Your task to perform on an android device: What's the weather going to be this weekend? Image 0: 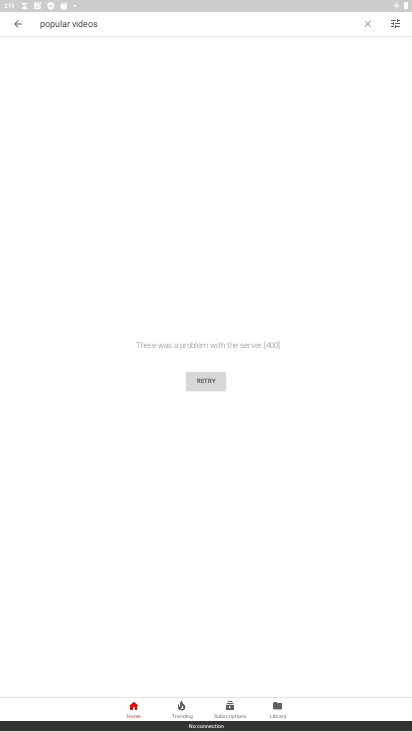
Step 0: press home button
Your task to perform on an android device: What's the weather going to be this weekend? Image 1: 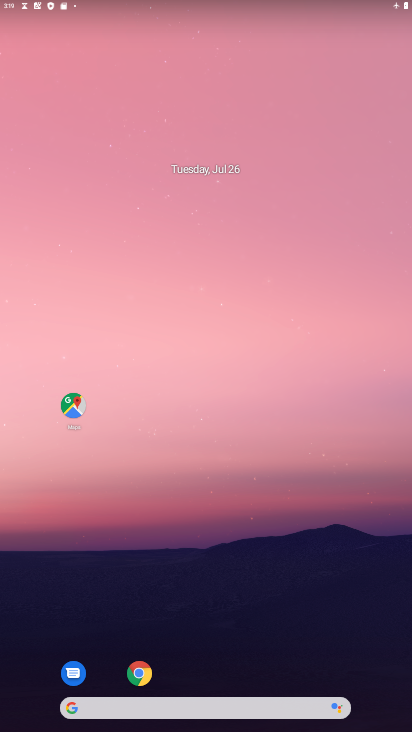
Step 1: drag from (196, 704) to (154, 12)
Your task to perform on an android device: What's the weather going to be this weekend? Image 2: 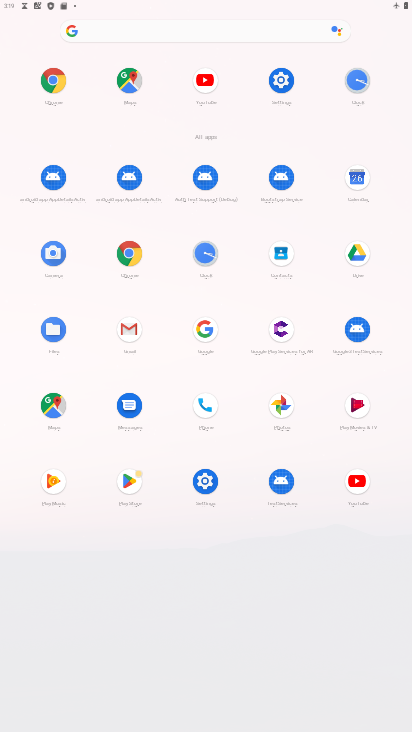
Step 2: click (203, 328)
Your task to perform on an android device: What's the weather going to be this weekend? Image 3: 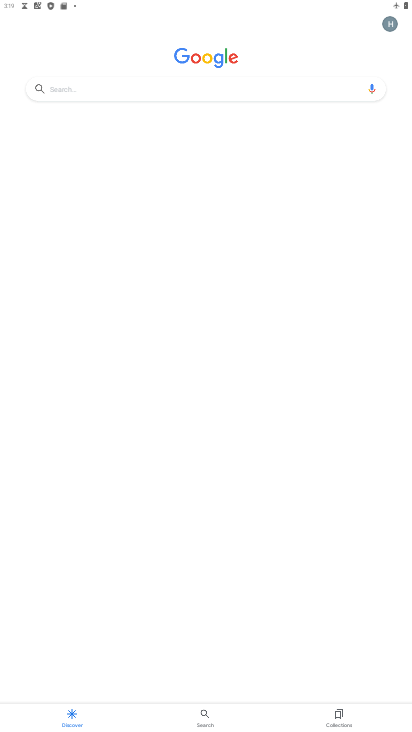
Step 3: click (269, 85)
Your task to perform on an android device: What's the weather going to be this weekend? Image 4: 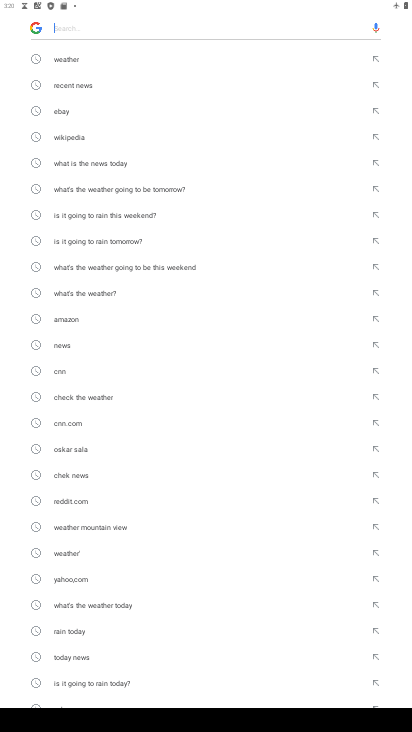
Step 4: type "What's the weather going to be this weekend?"
Your task to perform on an android device: What's the weather going to be this weekend? Image 5: 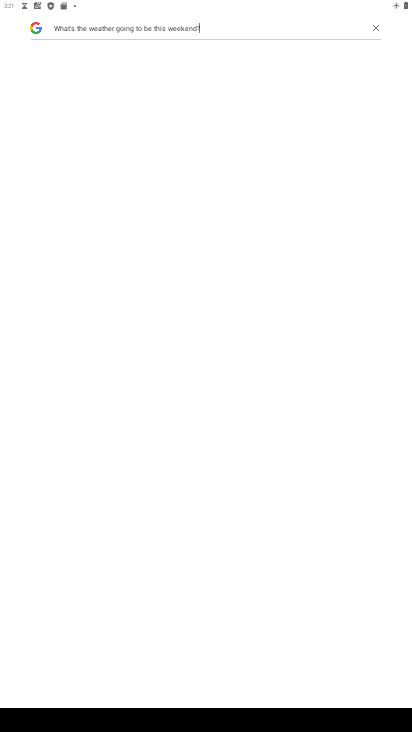
Step 5: task complete